Your task to perform on an android device: change alarm snooze length Image 0: 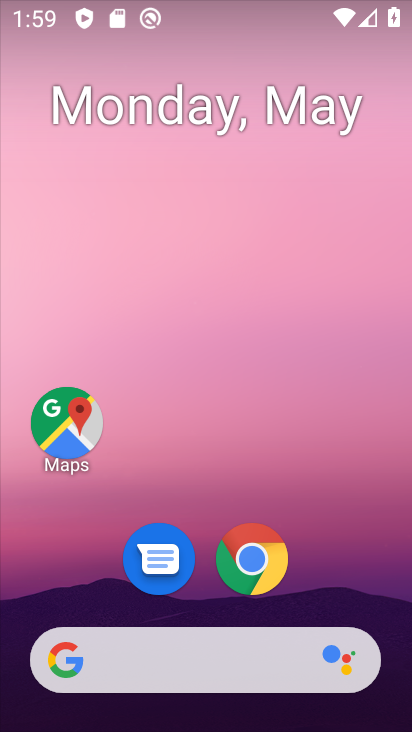
Step 0: drag from (214, 697) to (314, 98)
Your task to perform on an android device: change alarm snooze length Image 1: 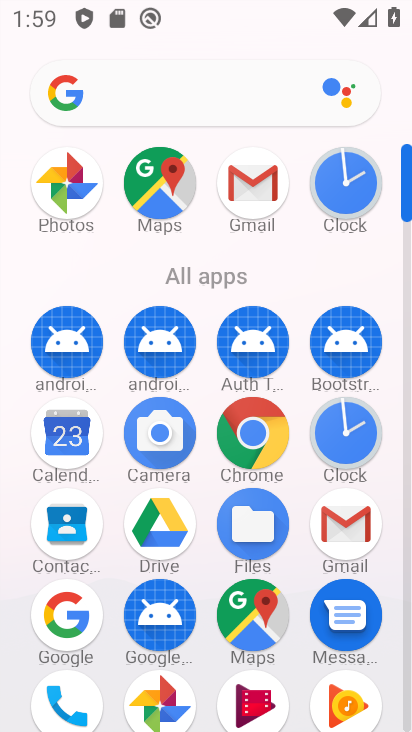
Step 1: drag from (206, 500) to (213, 202)
Your task to perform on an android device: change alarm snooze length Image 2: 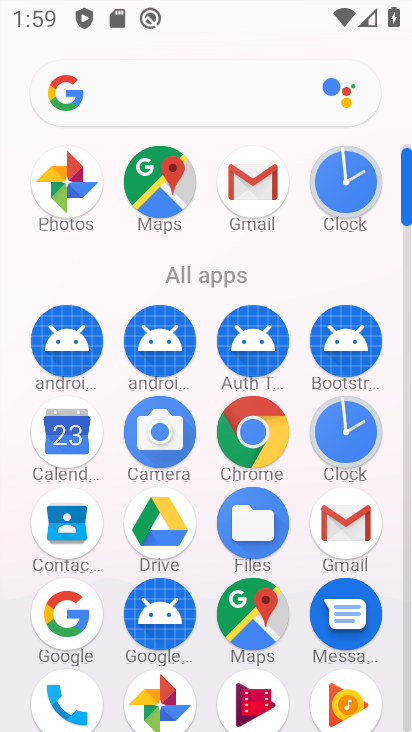
Step 2: click (333, 449)
Your task to perform on an android device: change alarm snooze length Image 3: 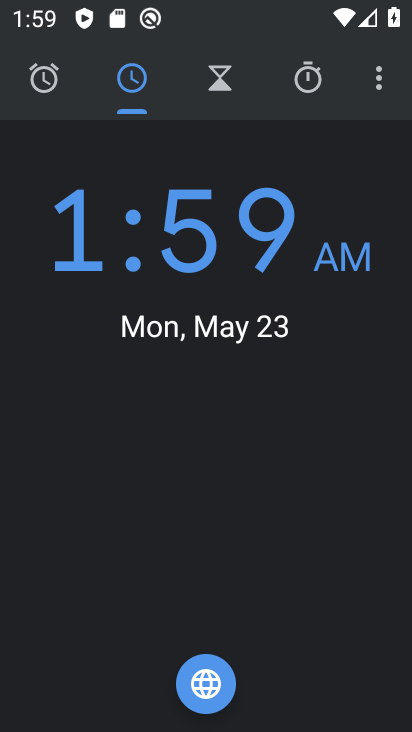
Step 3: click (386, 84)
Your task to perform on an android device: change alarm snooze length Image 4: 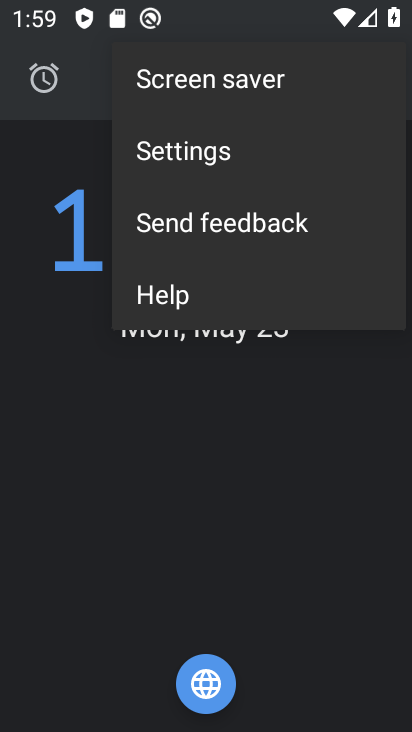
Step 4: click (205, 159)
Your task to perform on an android device: change alarm snooze length Image 5: 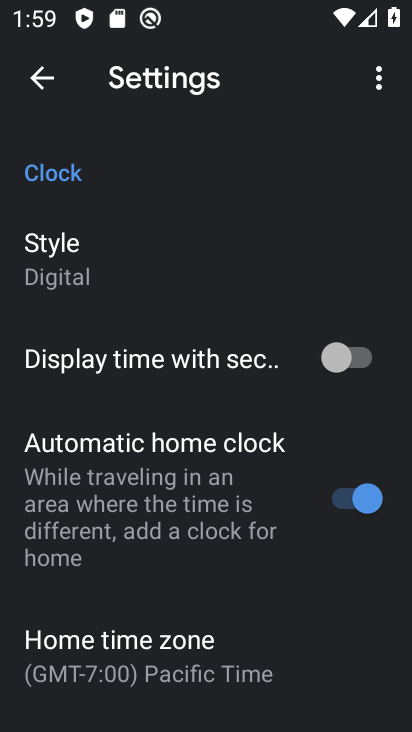
Step 5: drag from (180, 634) to (261, 236)
Your task to perform on an android device: change alarm snooze length Image 6: 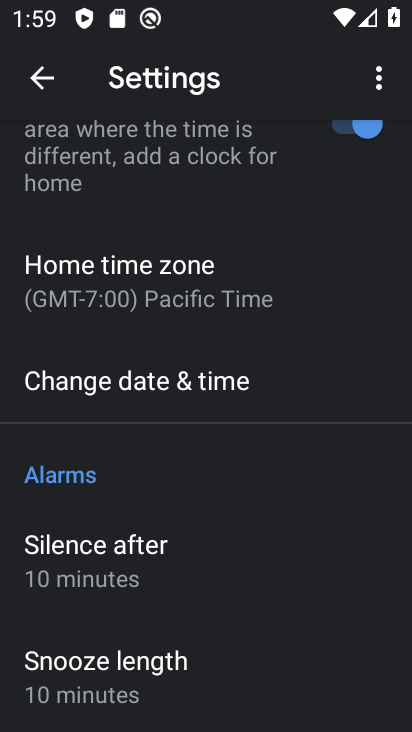
Step 6: click (143, 625)
Your task to perform on an android device: change alarm snooze length Image 7: 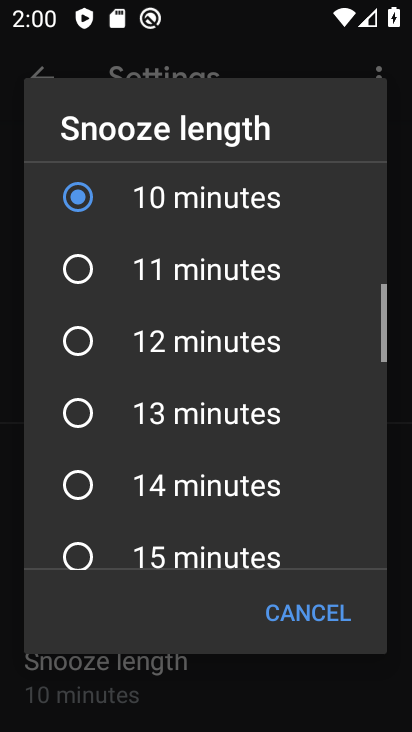
Step 7: click (176, 423)
Your task to perform on an android device: change alarm snooze length Image 8: 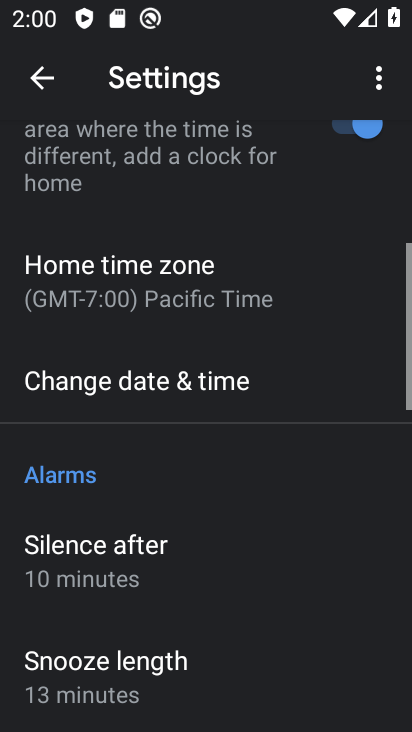
Step 8: task complete